Your task to perform on an android device: Search for vegetarian restaurants on Maps Image 0: 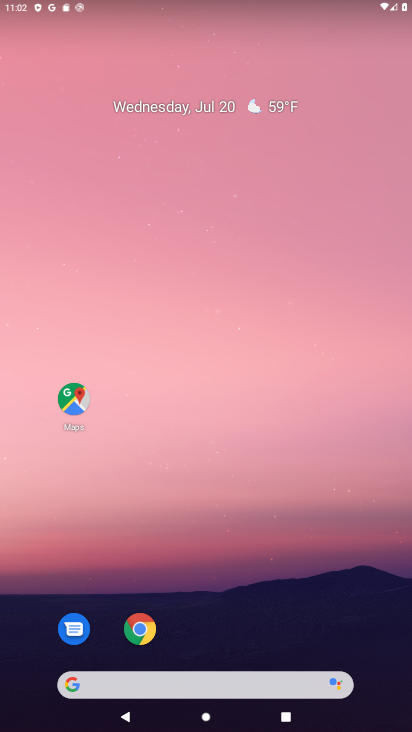
Step 0: click (56, 404)
Your task to perform on an android device: Search for vegetarian restaurants on Maps Image 1: 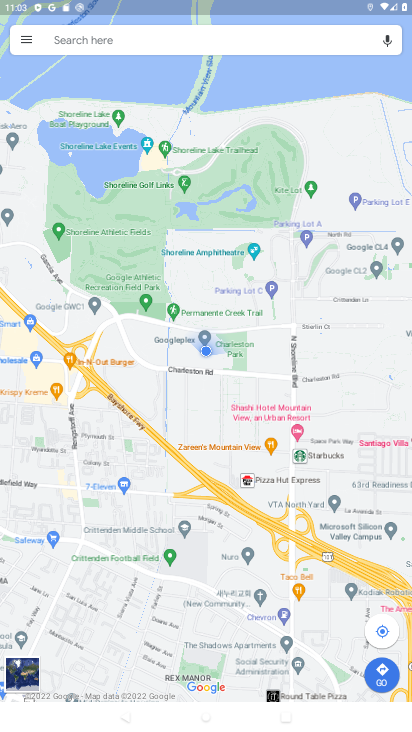
Step 1: click (86, 38)
Your task to perform on an android device: Search for vegetarian restaurants on Maps Image 2: 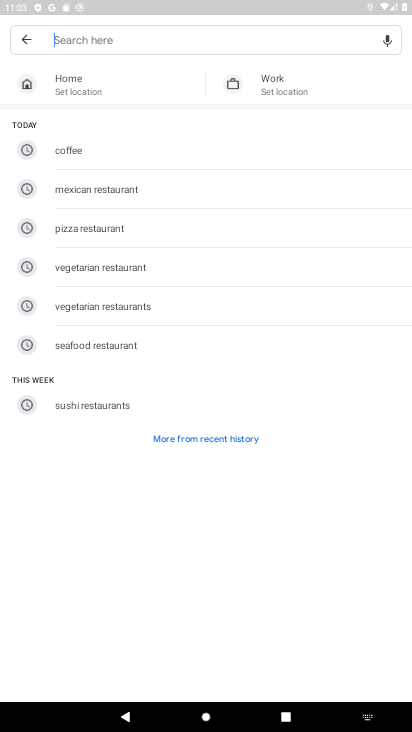
Step 2: click (104, 265)
Your task to perform on an android device: Search for vegetarian restaurants on Maps Image 3: 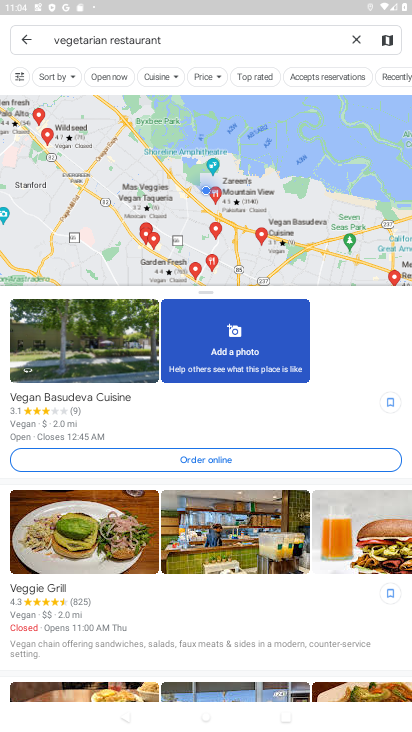
Step 3: task complete